Your task to perform on an android device: turn on notifications settings in the gmail app Image 0: 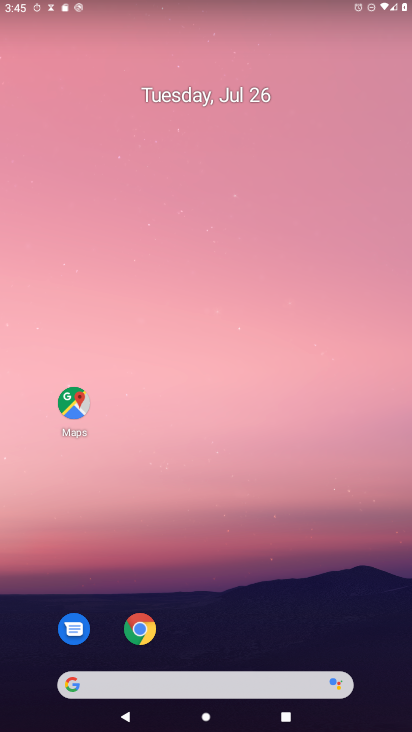
Step 0: drag from (280, 628) to (64, 313)
Your task to perform on an android device: turn on notifications settings in the gmail app Image 1: 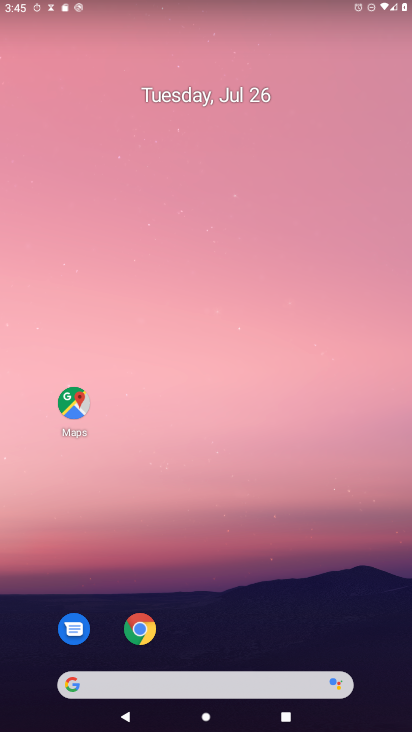
Step 1: click (111, 466)
Your task to perform on an android device: turn on notifications settings in the gmail app Image 2: 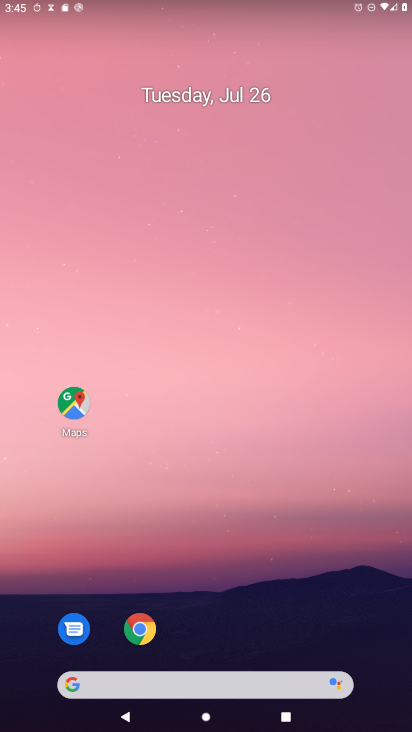
Step 2: drag from (235, 641) to (147, 14)
Your task to perform on an android device: turn on notifications settings in the gmail app Image 3: 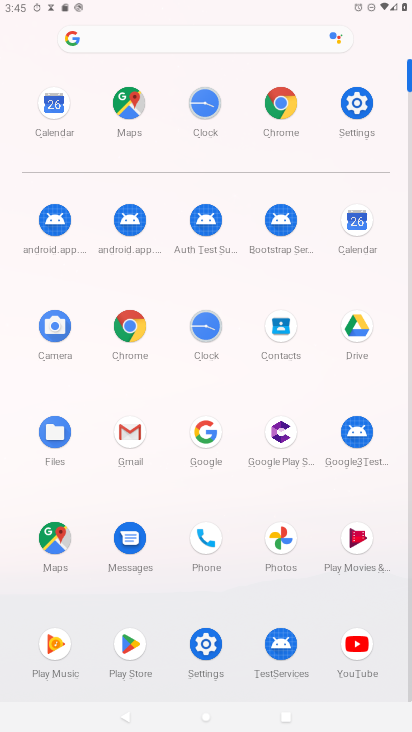
Step 3: click (129, 436)
Your task to perform on an android device: turn on notifications settings in the gmail app Image 4: 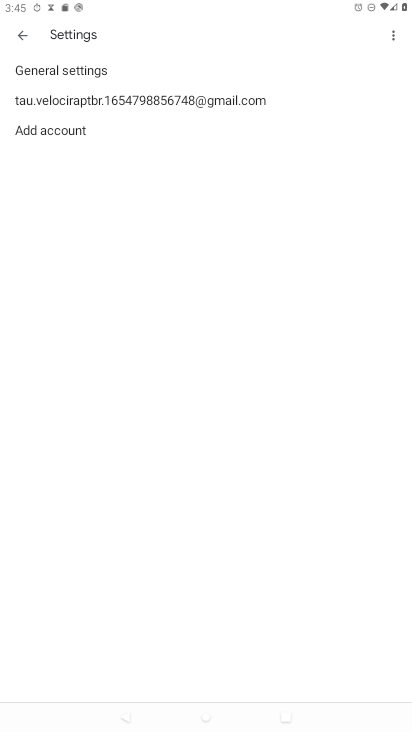
Step 4: press back button
Your task to perform on an android device: turn on notifications settings in the gmail app Image 5: 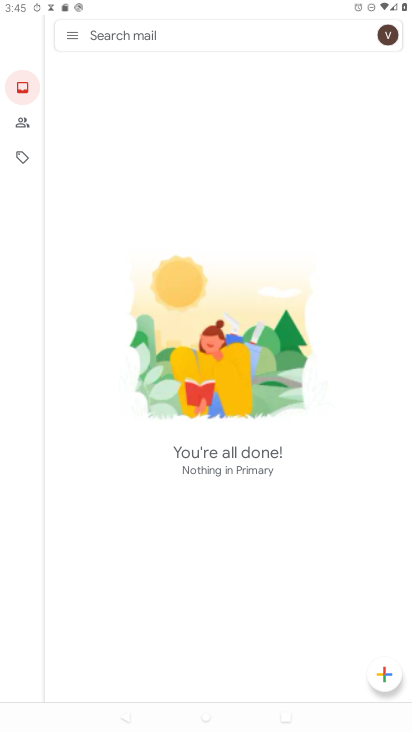
Step 5: click (72, 27)
Your task to perform on an android device: turn on notifications settings in the gmail app Image 6: 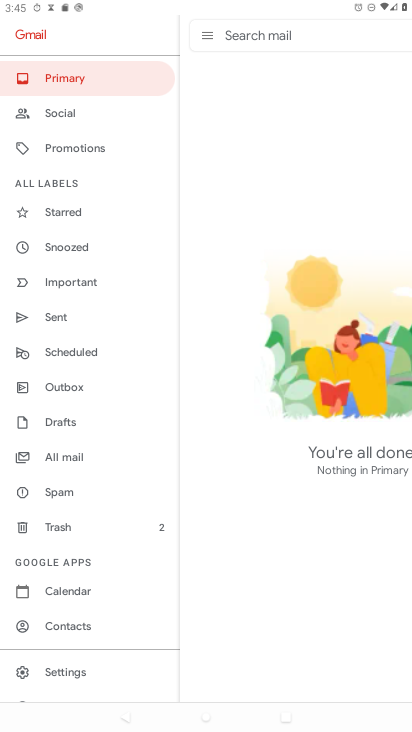
Step 6: click (72, 670)
Your task to perform on an android device: turn on notifications settings in the gmail app Image 7: 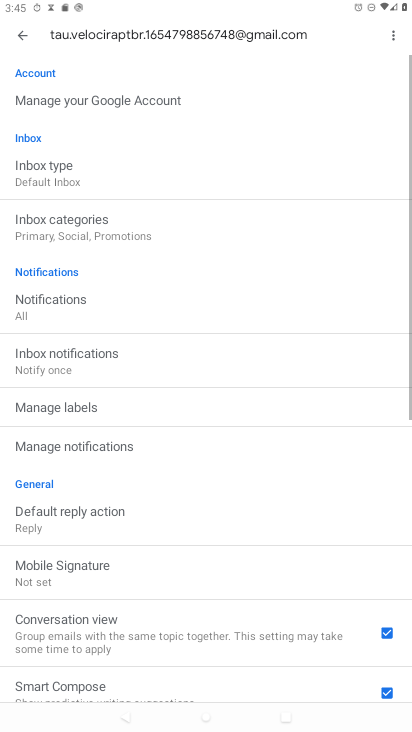
Step 7: click (122, 441)
Your task to perform on an android device: turn on notifications settings in the gmail app Image 8: 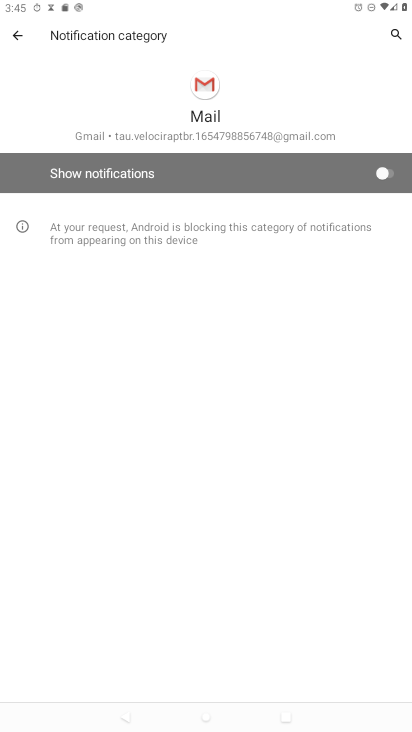
Step 8: task complete